Your task to perform on an android device: turn on the 24-hour format for clock Image 0: 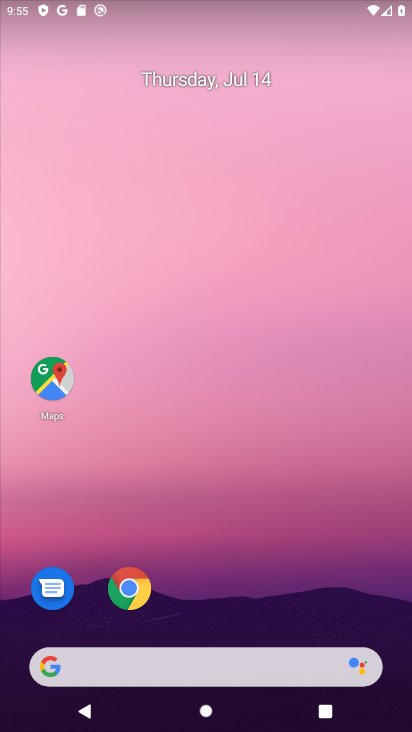
Step 0: drag from (201, 611) to (226, 85)
Your task to perform on an android device: turn on the 24-hour format for clock Image 1: 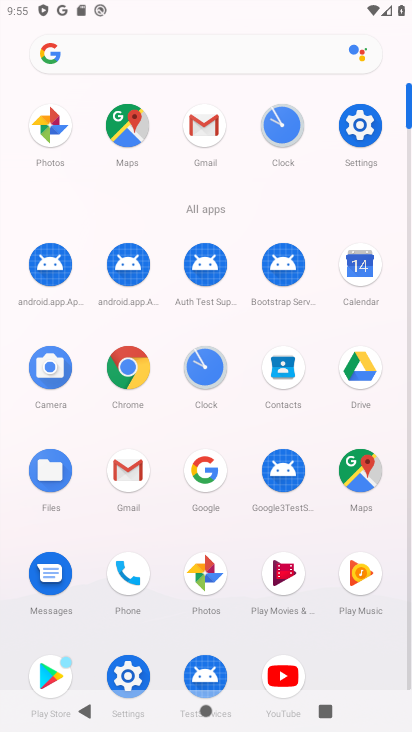
Step 1: click (209, 364)
Your task to perform on an android device: turn on the 24-hour format for clock Image 2: 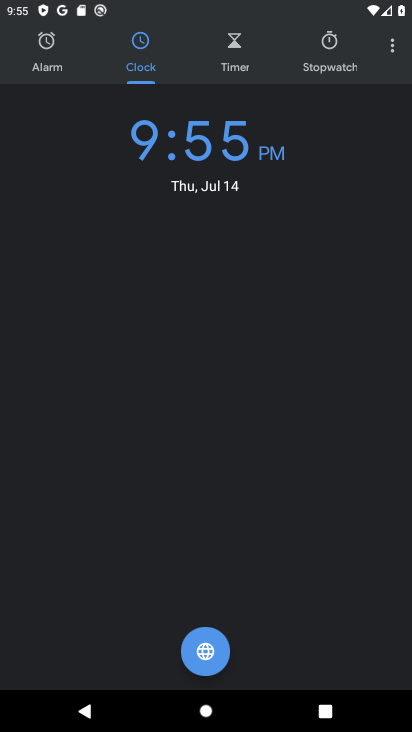
Step 2: click (386, 46)
Your task to perform on an android device: turn on the 24-hour format for clock Image 3: 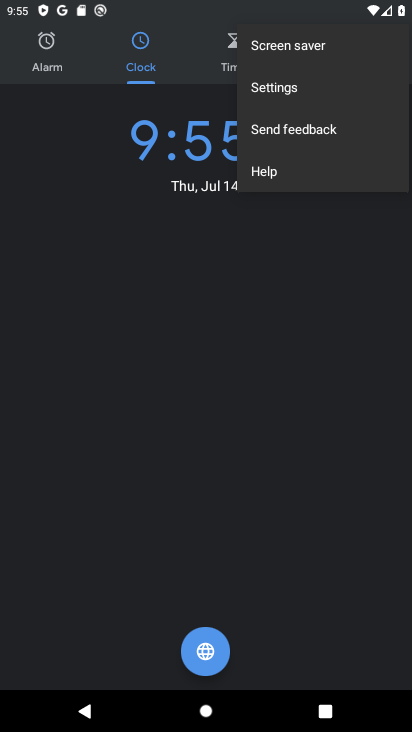
Step 3: click (260, 84)
Your task to perform on an android device: turn on the 24-hour format for clock Image 4: 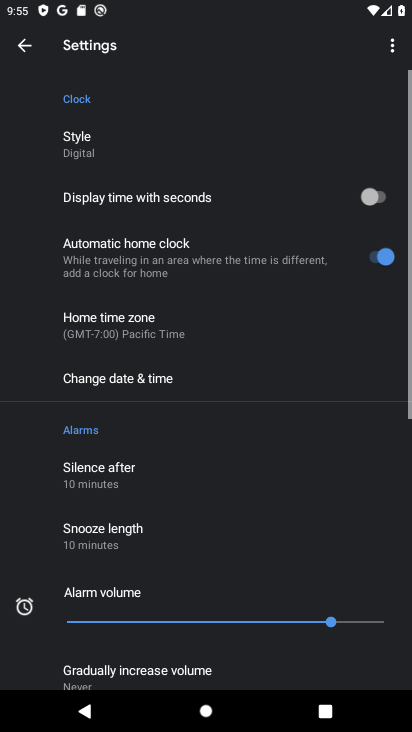
Step 4: click (143, 380)
Your task to perform on an android device: turn on the 24-hour format for clock Image 5: 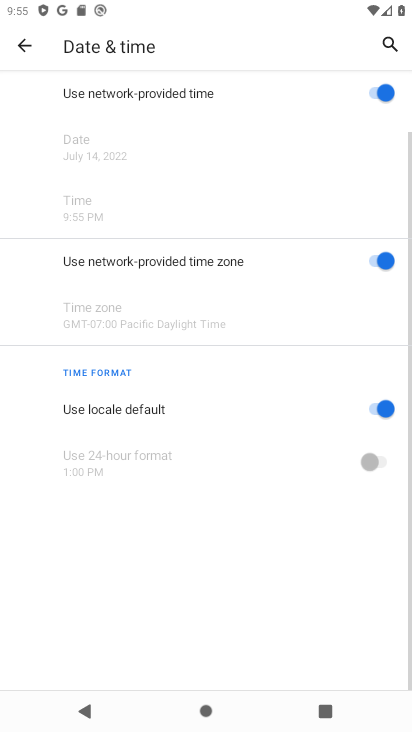
Step 5: click (383, 406)
Your task to perform on an android device: turn on the 24-hour format for clock Image 6: 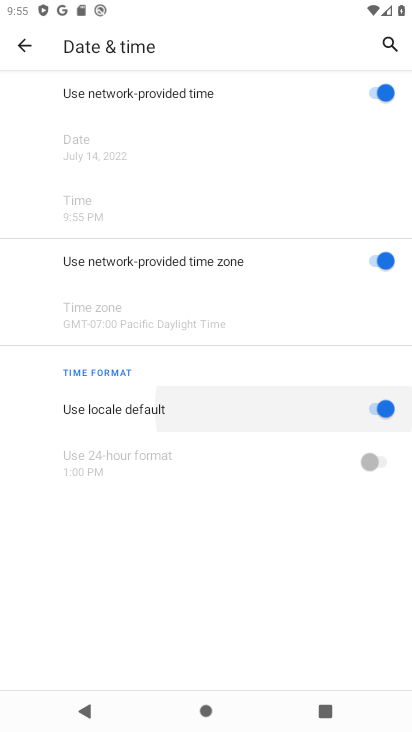
Step 6: click (366, 457)
Your task to perform on an android device: turn on the 24-hour format for clock Image 7: 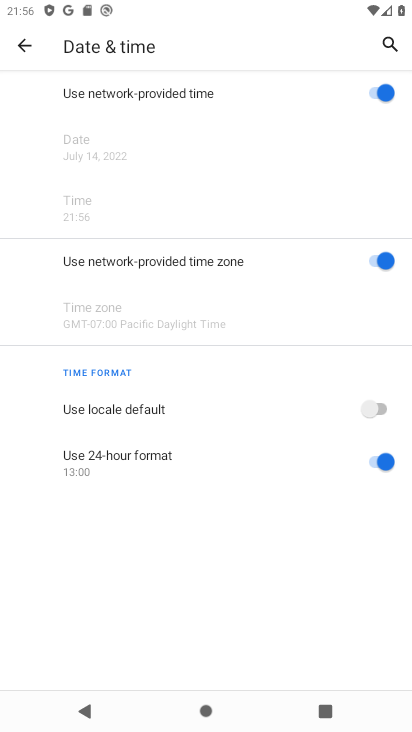
Step 7: task complete